Your task to perform on an android device: change timer sound Image 0: 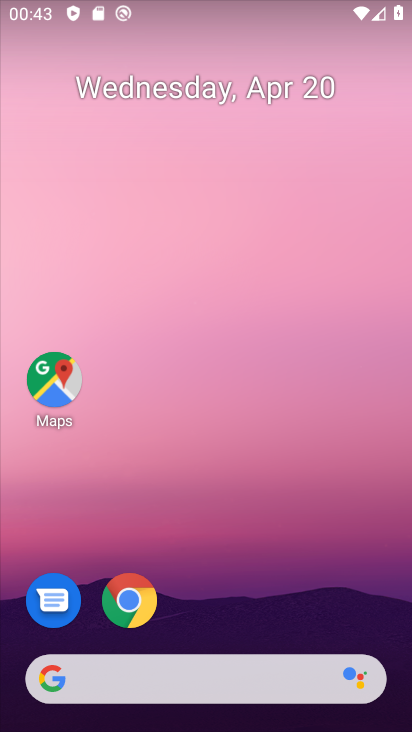
Step 0: drag from (228, 575) to (176, 46)
Your task to perform on an android device: change timer sound Image 1: 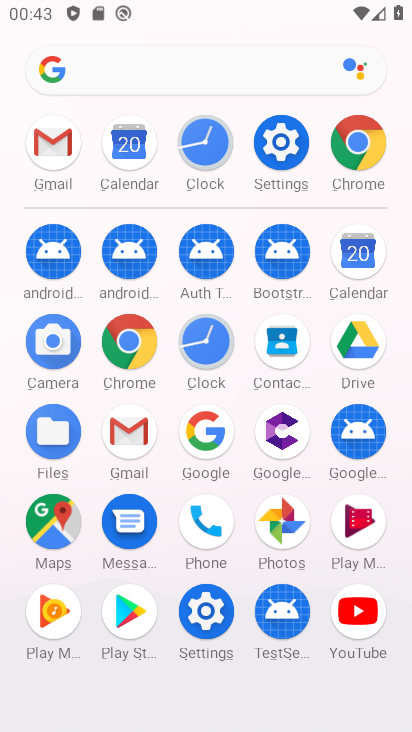
Step 1: drag from (11, 518) to (2, 178)
Your task to perform on an android device: change timer sound Image 2: 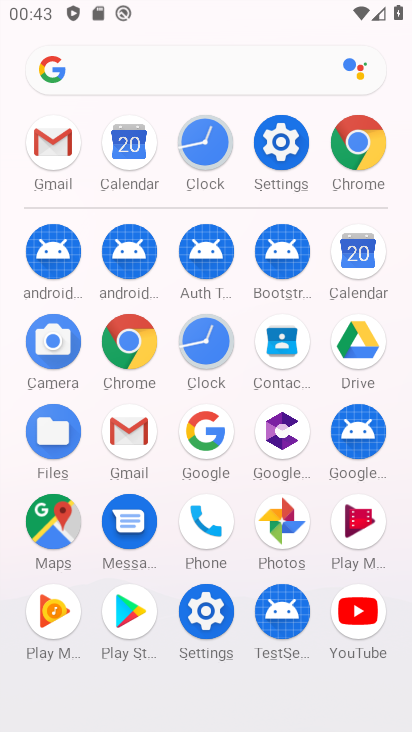
Step 2: click (205, 336)
Your task to perform on an android device: change timer sound Image 3: 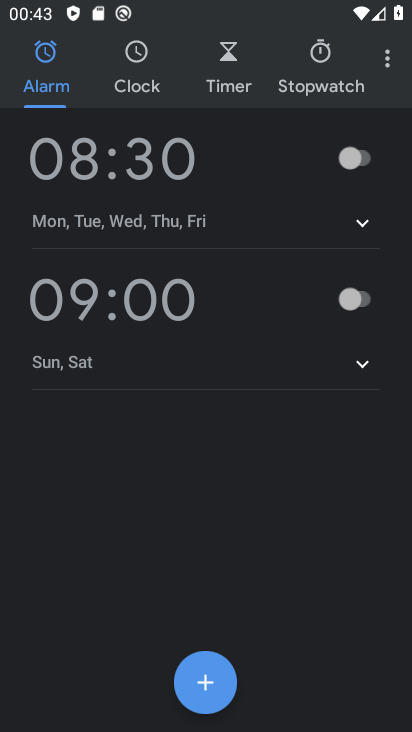
Step 3: click (391, 58)
Your task to perform on an android device: change timer sound Image 4: 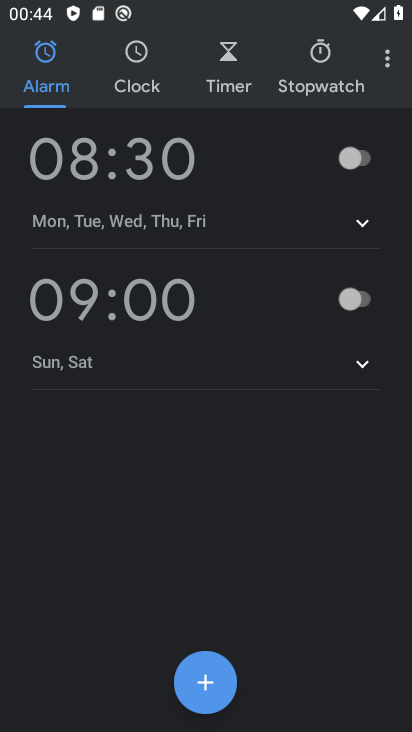
Step 4: click (387, 69)
Your task to perform on an android device: change timer sound Image 5: 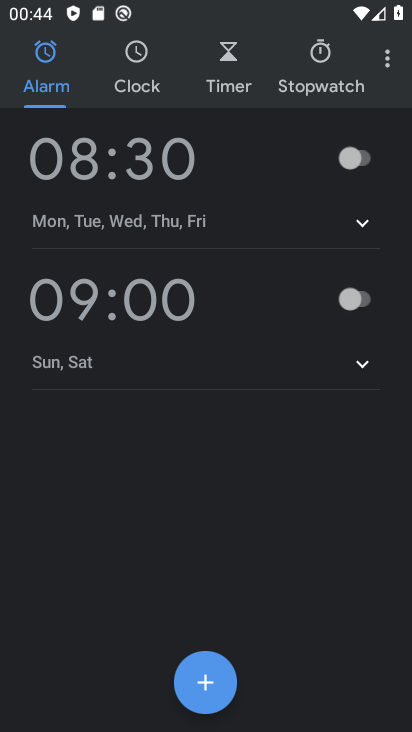
Step 5: click (386, 58)
Your task to perform on an android device: change timer sound Image 6: 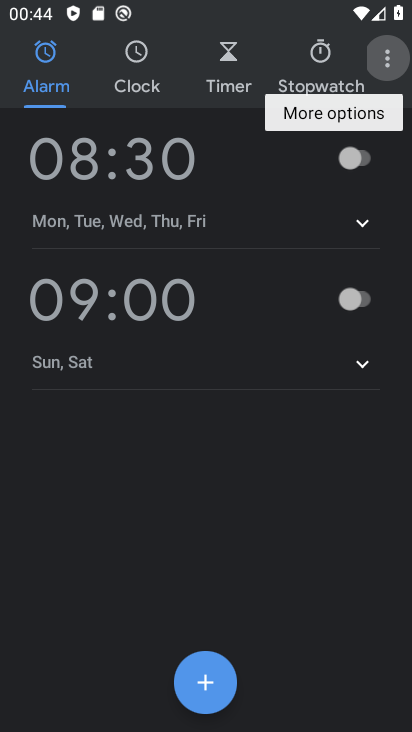
Step 6: click (386, 58)
Your task to perform on an android device: change timer sound Image 7: 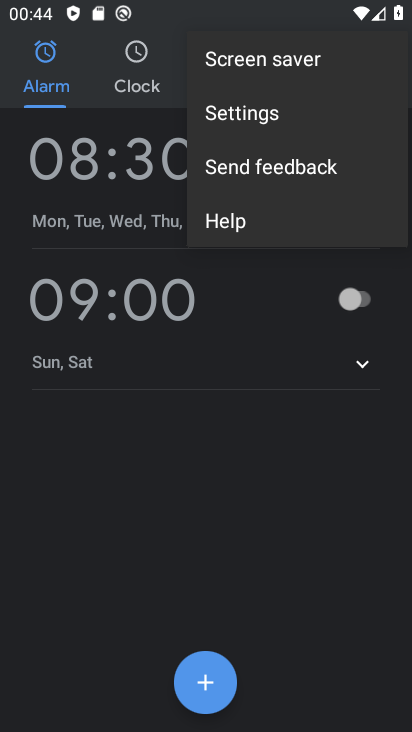
Step 7: click (273, 127)
Your task to perform on an android device: change timer sound Image 8: 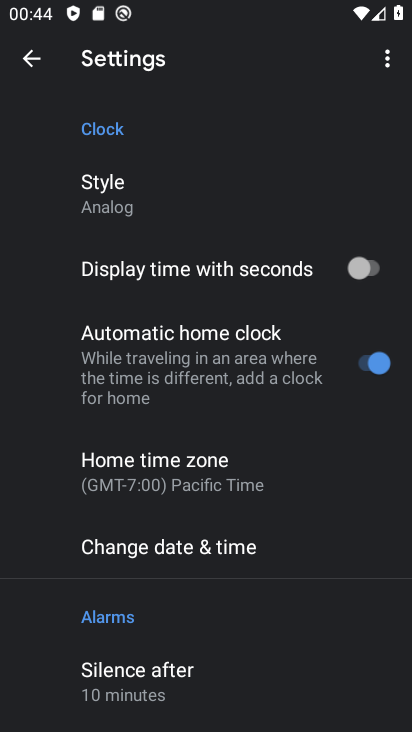
Step 8: drag from (210, 694) to (201, 240)
Your task to perform on an android device: change timer sound Image 9: 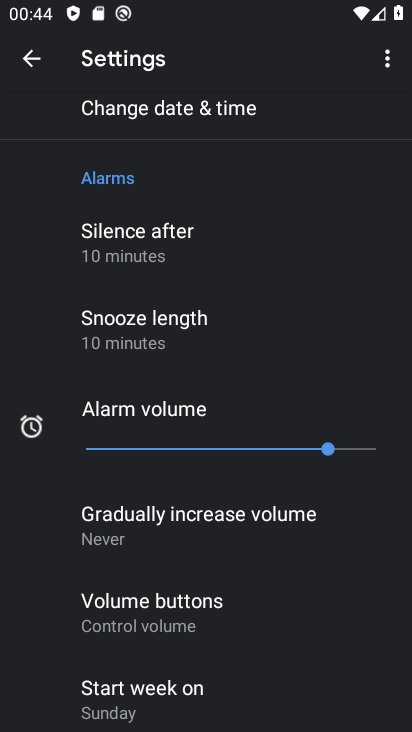
Step 9: drag from (227, 585) to (207, 177)
Your task to perform on an android device: change timer sound Image 10: 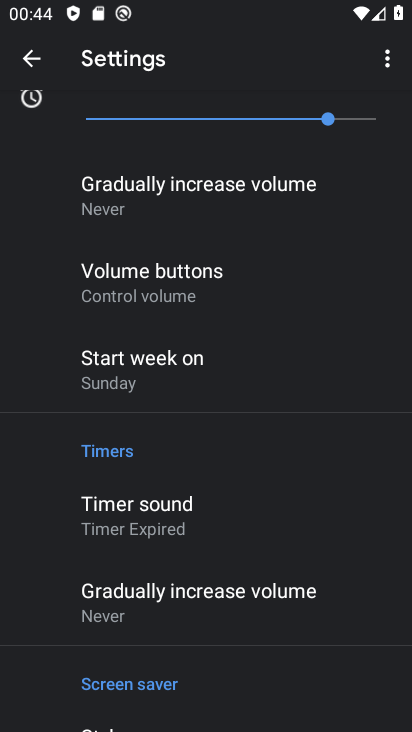
Step 10: click (193, 515)
Your task to perform on an android device: change timer sound Image 11: 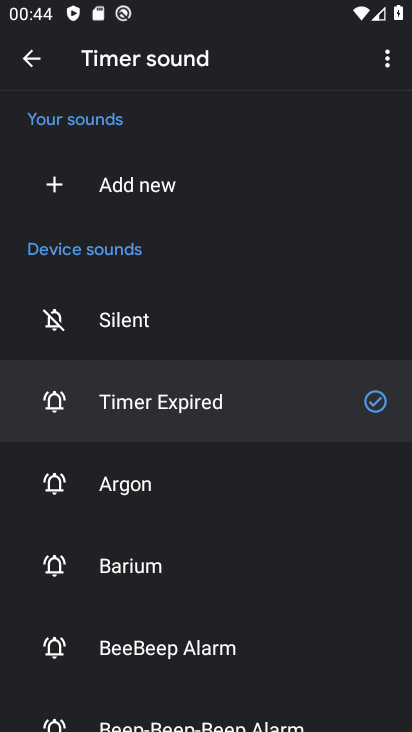
Step 11: click (225, 650)
Your task to perform on an android device: change timer sound Image 12: 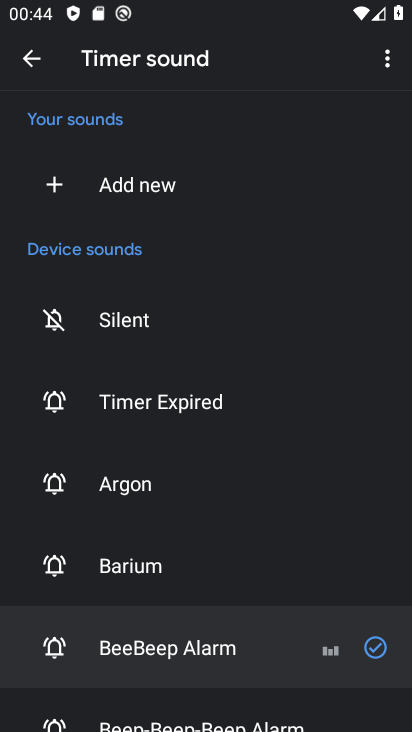
Step 12: task complete